Your task to perform on an android device: Open Youtube and go to the subscriptions tab Image 0: 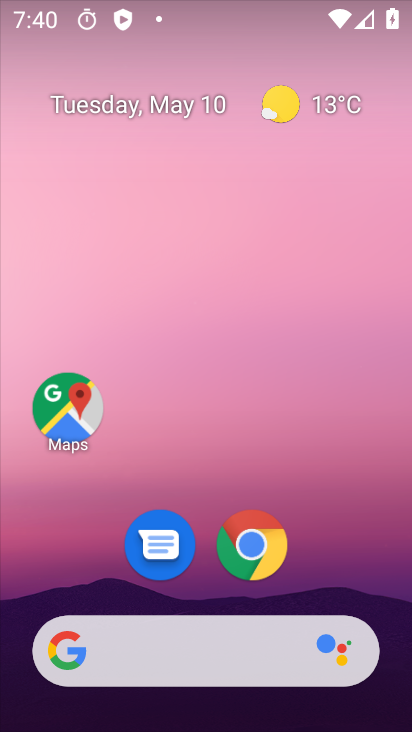
Step 0: drag from (207, 588) to (207, 208)
Your task to perform on an android device: Open Youtube and go to the subscriptions tab Image 1: 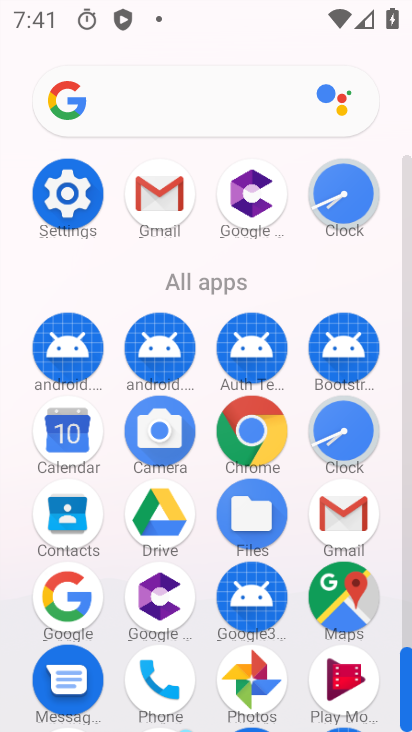
Step 1: drag from (202, 648) to (205, 412)
Your task to perform on an android device: Open Youtube and go to the subscriptions tab Image 2: 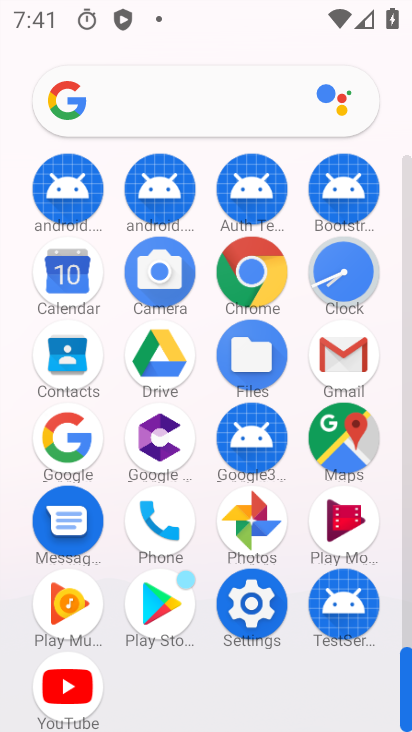
Step 2: click (72, 687)
Your task to perform on an android device: Open Youtube and go to the subscriptions tab Image 3: 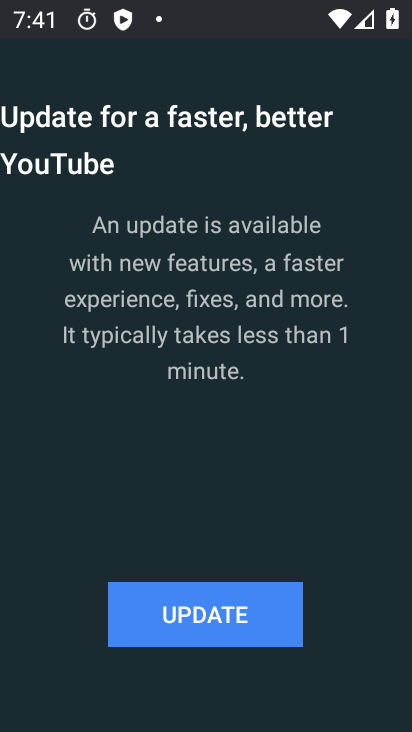
Step 3: click (202, 613)
Your task to perform on an android device: Open Youtube and go to the subscriptions tab Image 4: 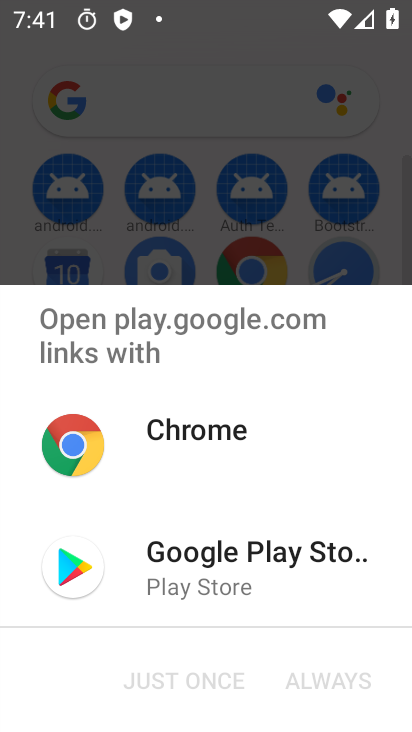
Step 4: click (167, 583)
Your task to perform on an android device: Open Youtube and go to the subscriptions tab Image 5: 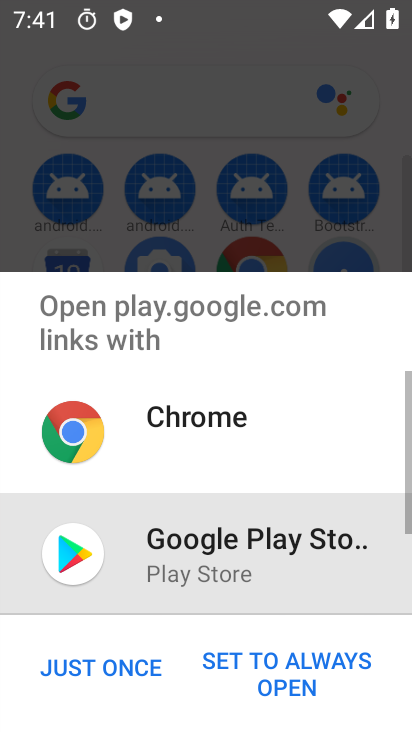
Step 5: click (115, 670)
Your task to perform on an android device: Open Youtube and go to the subscriptions tab Image 6: 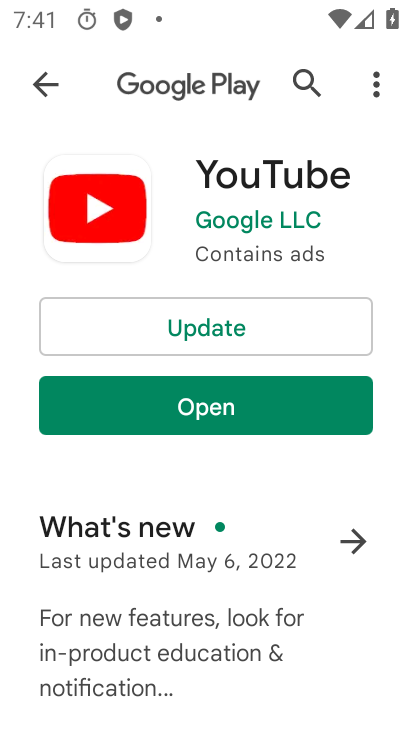
Step 6: click (222, 326)
Your task to perform on an android device: Open Youtube and go to the subscriptions tab Image 7: 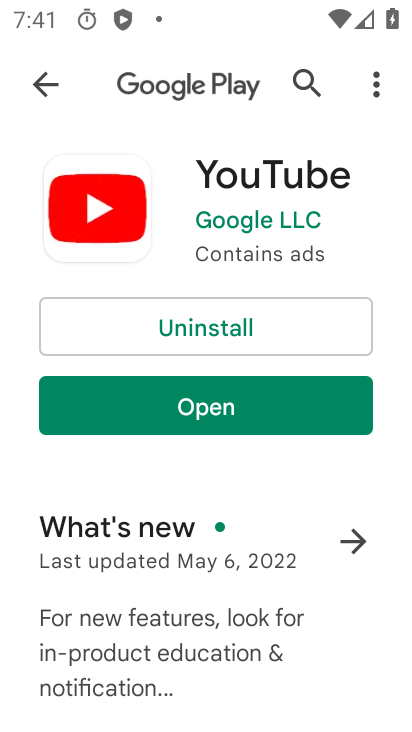
Step 7: click (204, 415)
Your task to perform on an android device: Open Youtube and go to the subscriptions tab Image 8: 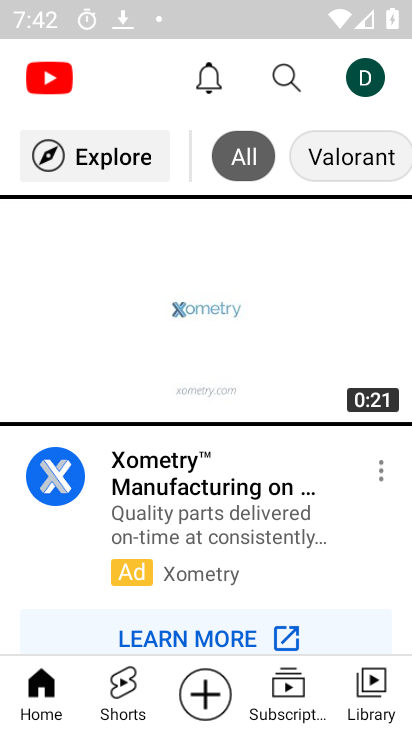
Step 8: click (284, 687)
Your task to perform on an android device: Open Youtube and go to the subscriptions tab Image 9: 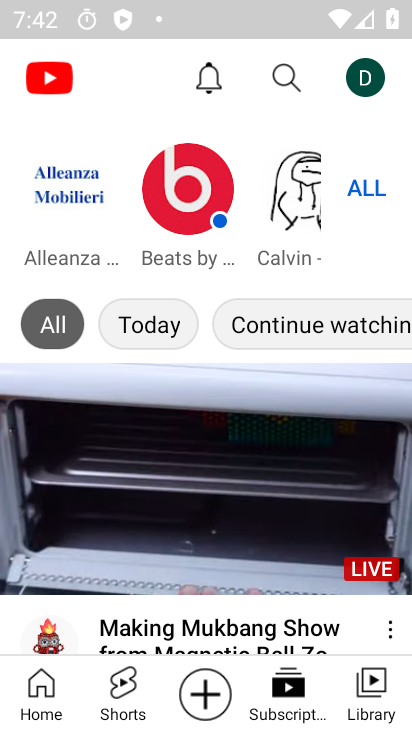
Step 9: task complete